Your task to perform on an android device: Open wifi settings Image 0: 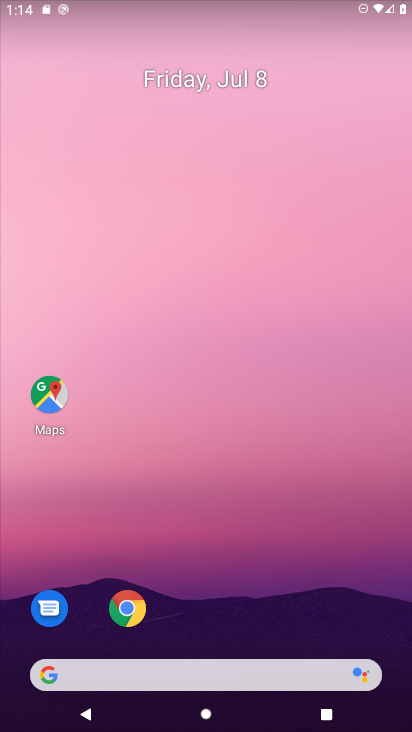
Step 0: drag from (288, 626) to (270, 249)
Your task to perform on an android device: Open wifi settings Image 1: 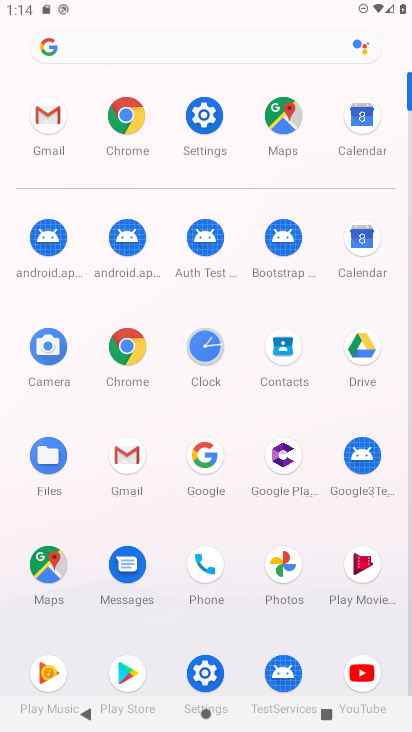
Step 1: click (198, 147)
Your task to perform on an android device: Open wifi settings Image 2: 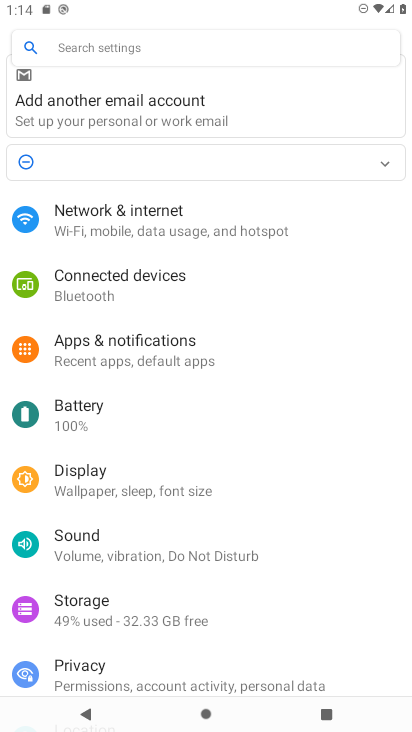
Step 2: click (153, 223)
Your task to perform on an android device: Open wifi settings Image 3: 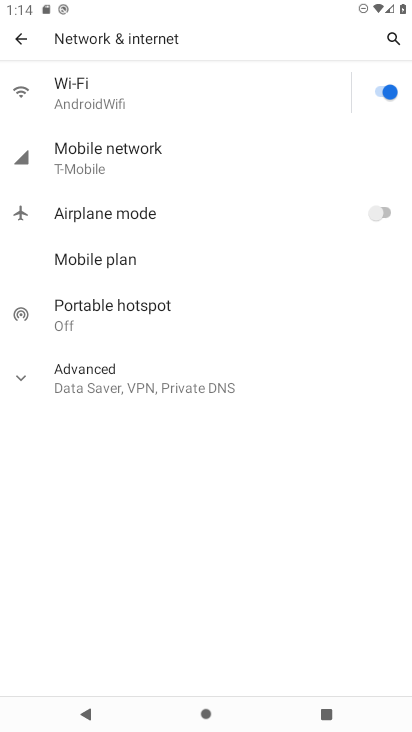
Step 3: click (160, 127)
Your task to perform on an android device: Open wifi settings Image 4: 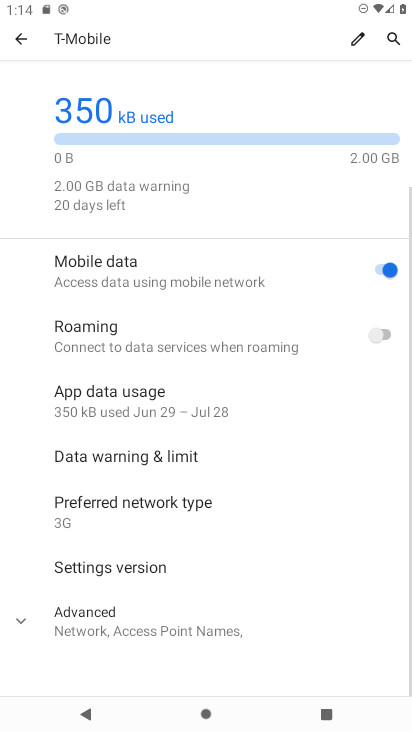
Step 4: click (23, 41)
Your task to perform on an android device: Open wifi settings Image 5: 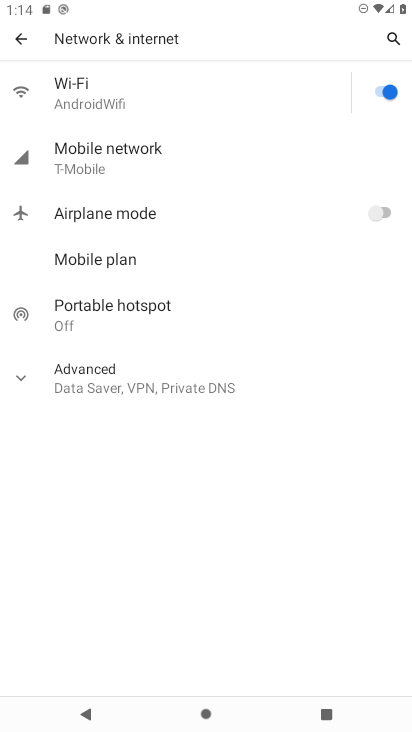
Step 5: click (119, 75)
Your task to perform on an android device: Open wifi settings Image 6: 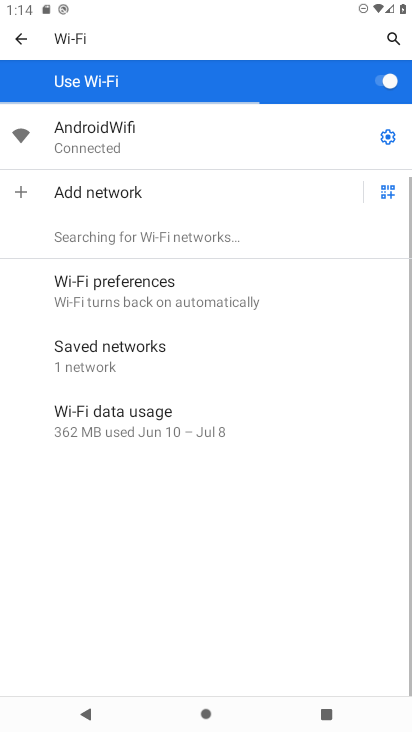
Step 6: task complete